Your task to perform on an android device: add a contact in the contacts app Image 0: 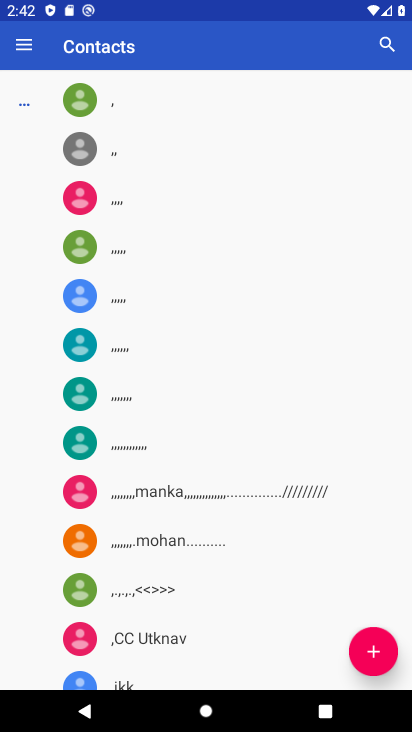
Step 0: click (361, 656)
Your task to perform on an android device: add a contact in the contacts app Image 1: 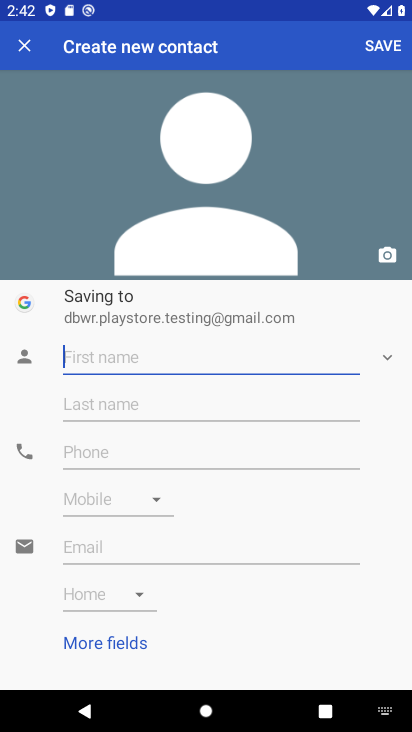
Step 1: click (134, 360)
Your task to perform on an android device: add a contact in the contacts app Image 2: 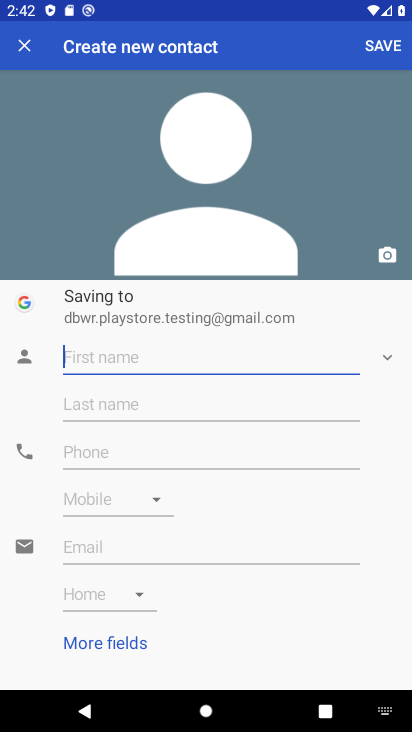
Step 2: type "Naveen"
Your task to perform on an android device: add a contact in the contacts app Image 3: 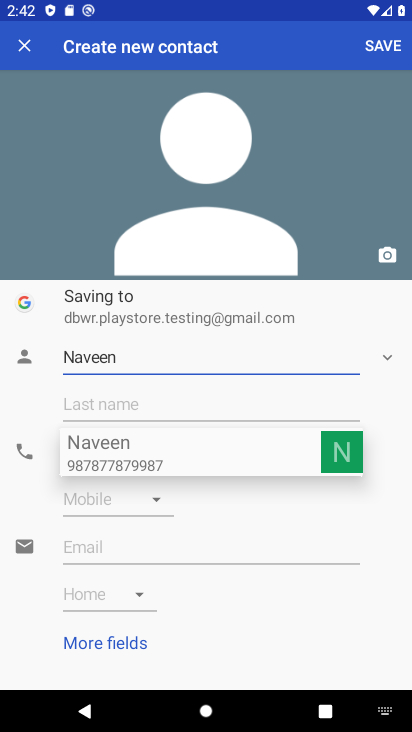
Step 3: click (221, 407)
Your task to perform on an android device: add a contact in the contacts app Image 4: 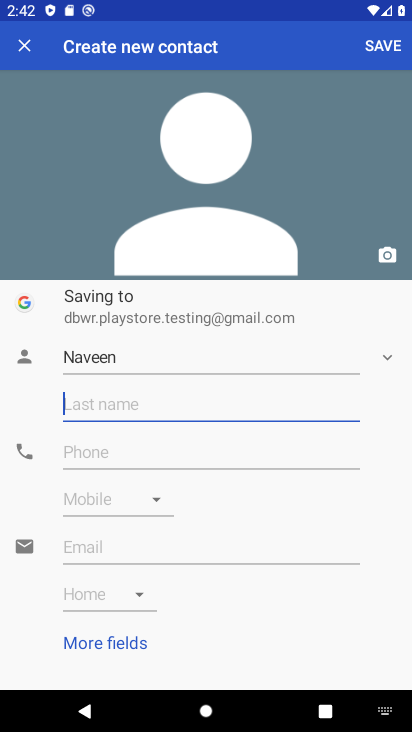
Step 4: type "ojha"
Your task to perform on an android device: add a contact in the contacts app Image 5: 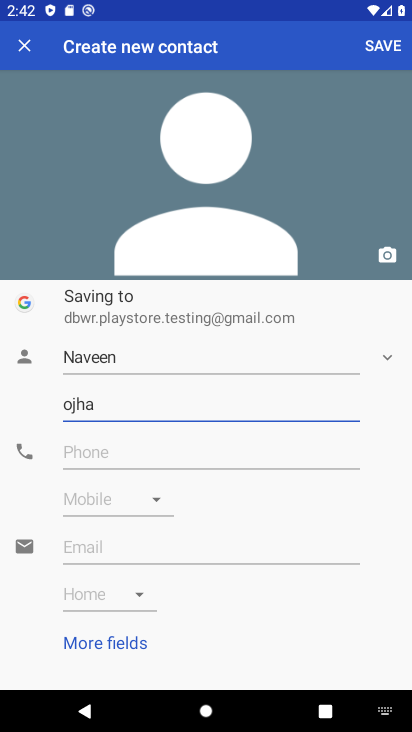
Step 5: click (167, 462)
Your task to perform on an android device: add a contact in the contacts app Image 6: 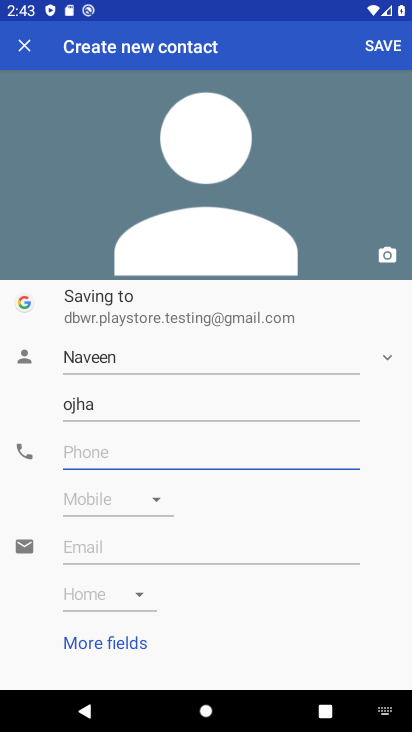
Step 6: click (143, 447)
Your task to perform on an android device: add a contact in the contacts app Image 7: 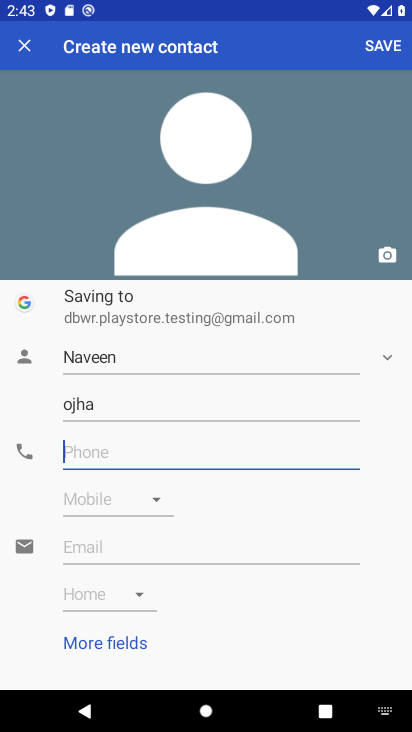
Step 7: type "6565676789"
Your task to perform on an android device: add a contact in the contacts app Image 8: 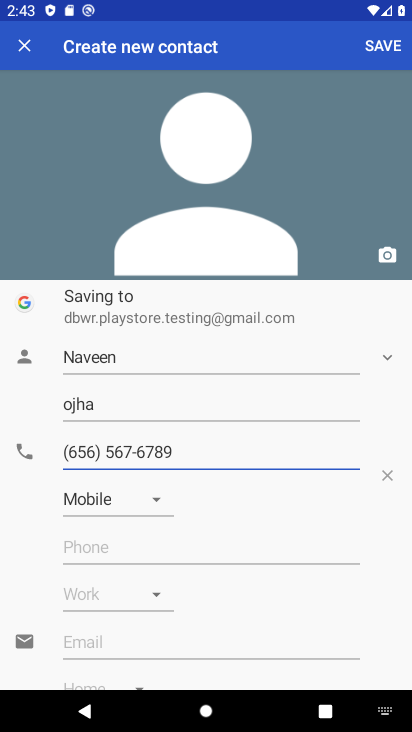
Step 8: click (379, 48)
Your task to perform on an android device: add a contact in the contacts app Image 9: 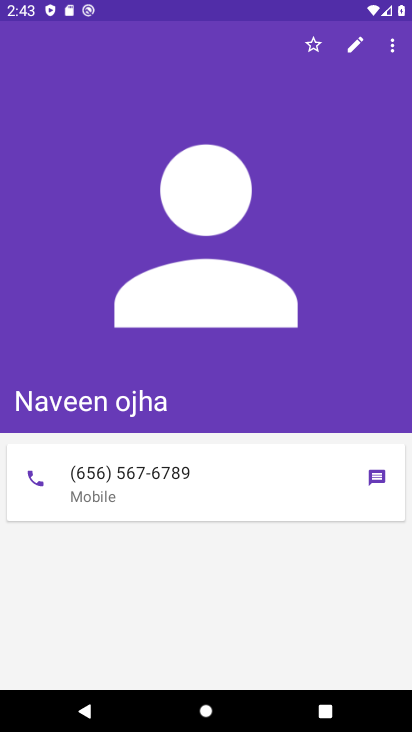
Step 9: task complete